Your task to perform on an android device: Turn on the flashlight Image 0: 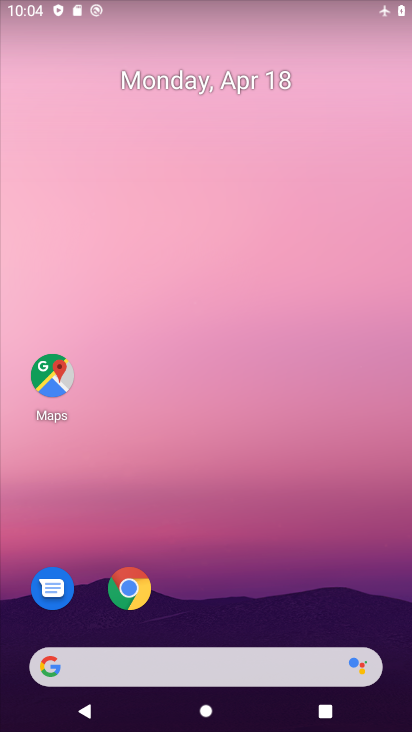
Step 0: drag from (239, 581) to (198, 32)
Your task to perform on an android device: Turn on the flashlight Image 1: 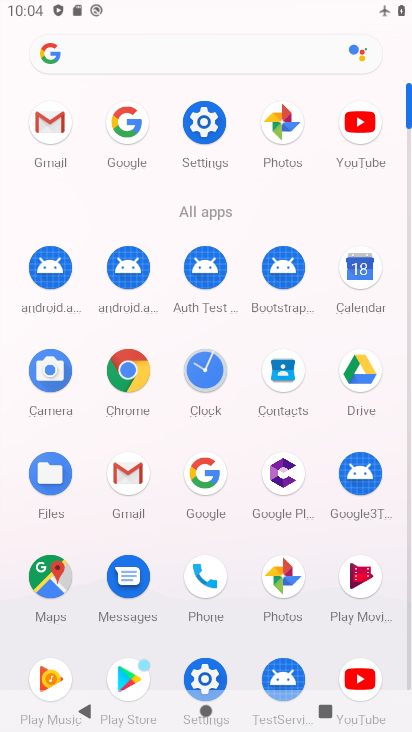
Step 1: click (201, 130)
Your task to perform on an android device: Turn on the flashlight Image 2: 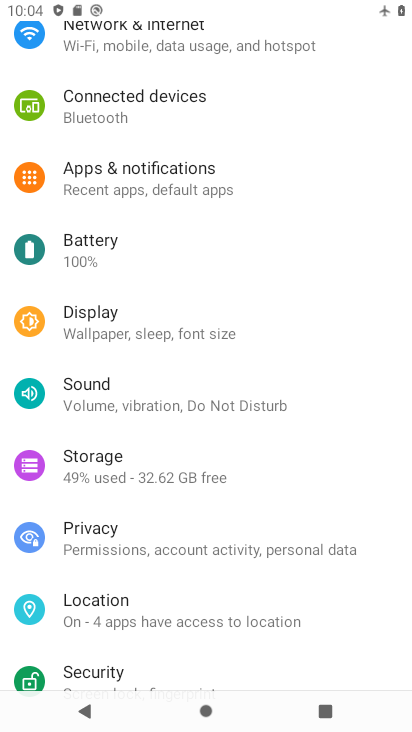
Step 2: task complete